Your task to perform on an android device: open wifi settings Image 0: 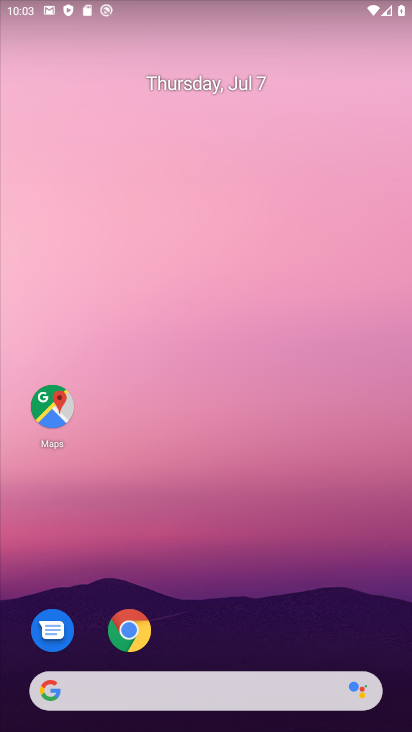
Step 0: drag from (295, 480) to (222, 190)
Your task to perform on an android device: open wifi settings Image 1: 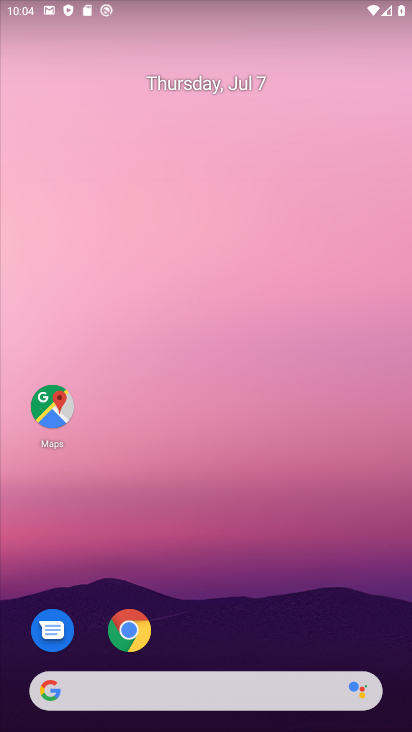
Step 1: drag from (226, 516) to (389, 17)
Your task to perform on an android device: open wifi settings Image 2: 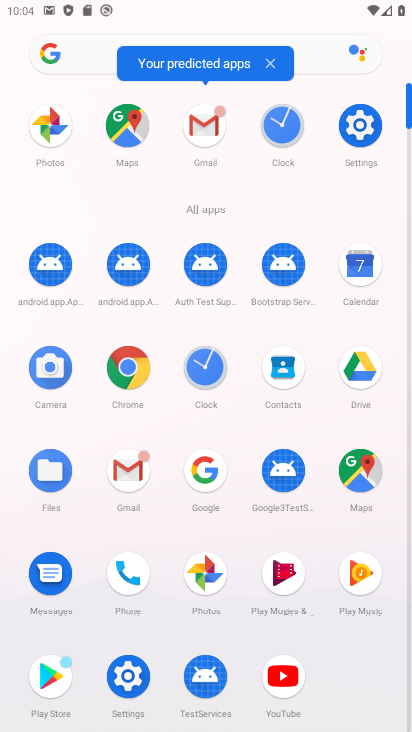
Step 2: click (363, 124)
Your task to perform on an android device: open wifi settings Image 3: 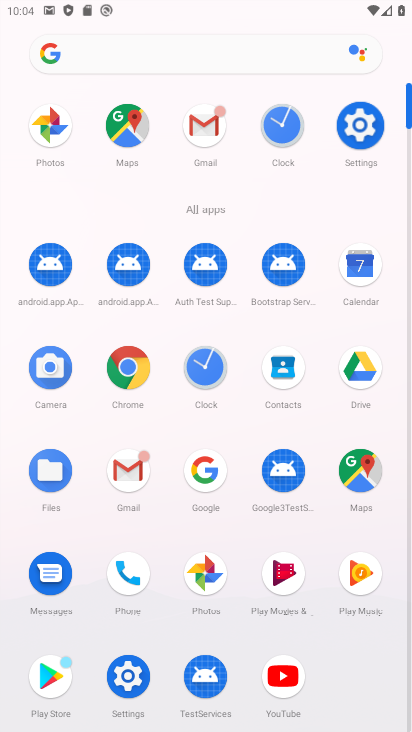
Step 3: click (364, 146)
Your task to perform on an android device: open wifi settings Image 4: 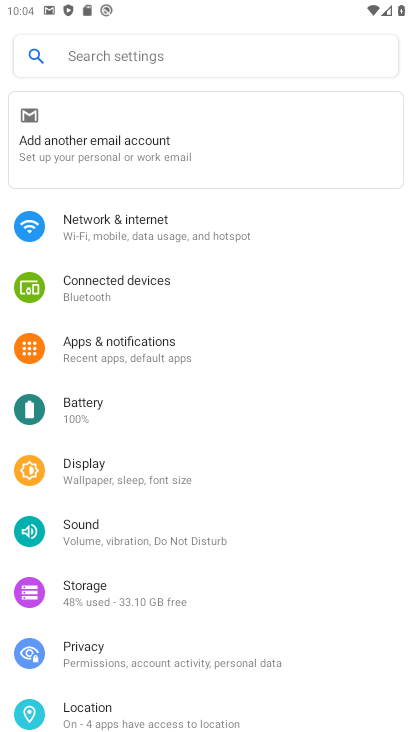
Step 4: drag from (106, 195) to (108, 230)
Your task to perform on an android device: open wifi settings Image 5: 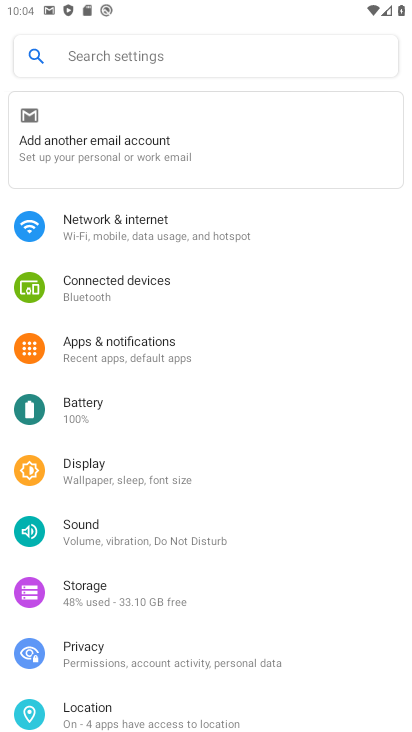
Step 5: click (114, 229)
Your task to perform on an android device: open wifi settings Image 6: 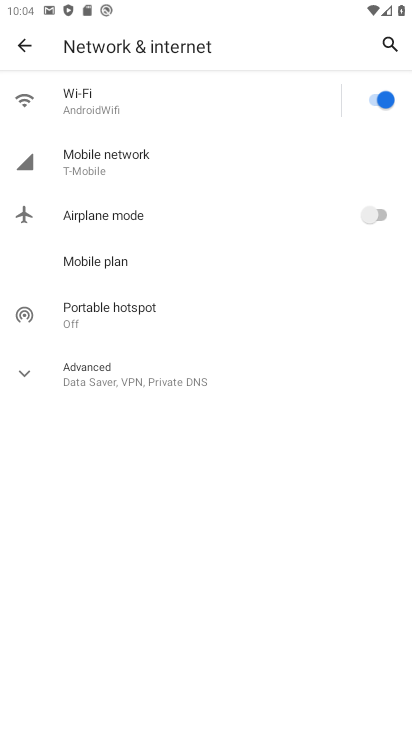
Step 6: task complete